Your task to perform on an android device: Turn on the flashlight Image 0: 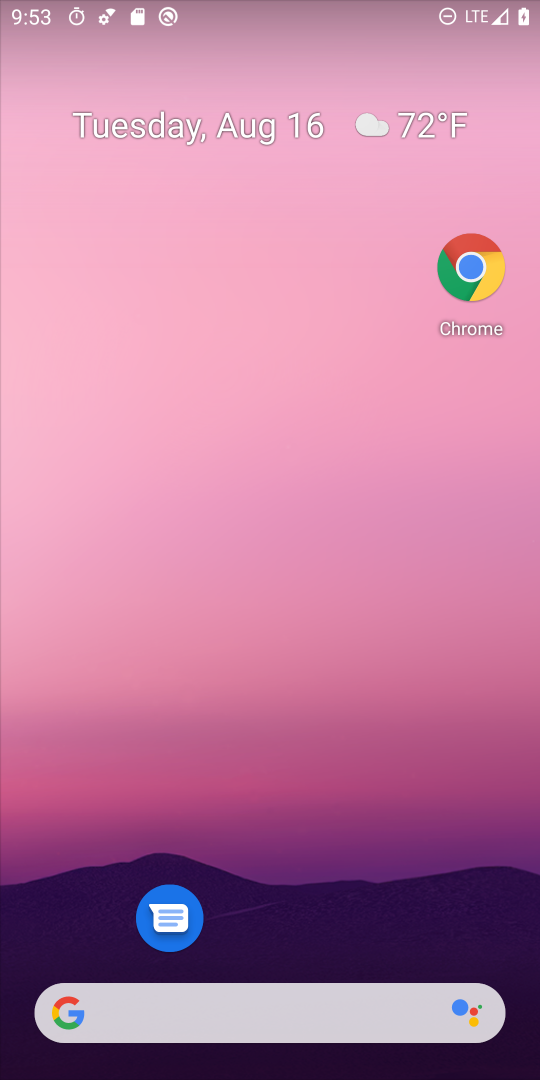
Step 0: drag from (368, 856) to (427, 245)
Your task to perform on an android device: Turn on the flashlight Image 1: 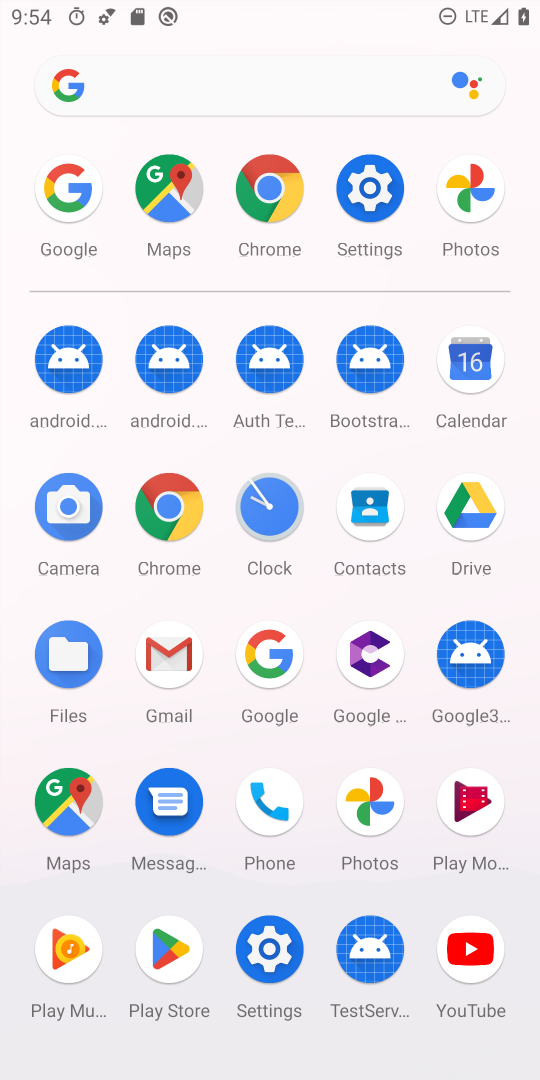
Step 1: task complete